Your task to perform on an android device: set default search engine in the chrome app Image 0: 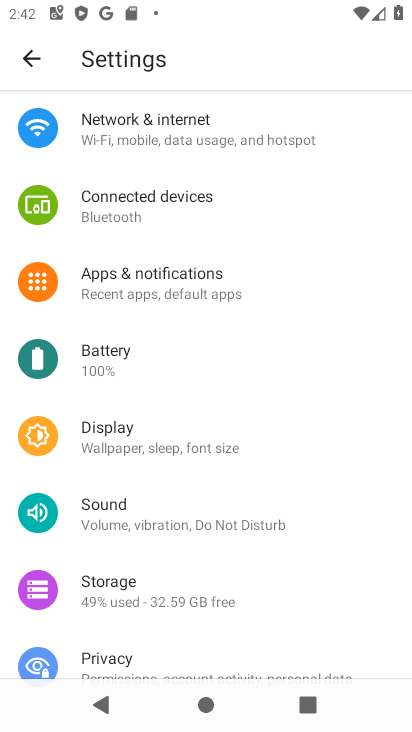
Step 0: press home button
Your task to perform on an android device: set default search engine in the chrome app Image 1: 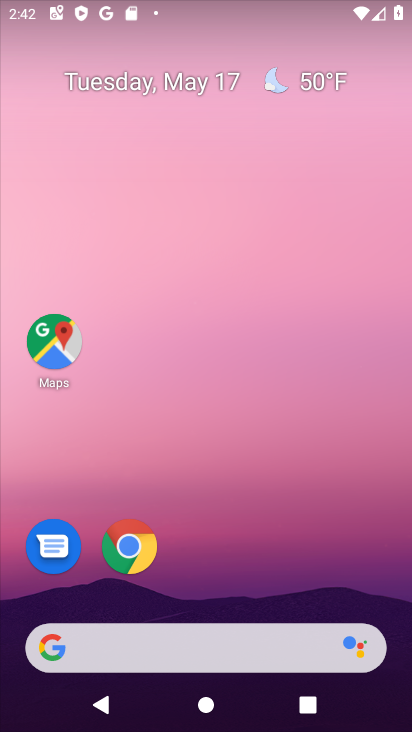
Step 1: click (135, 550)
Your task to perform on an android device: set default search engine in the chrome app Image 2: 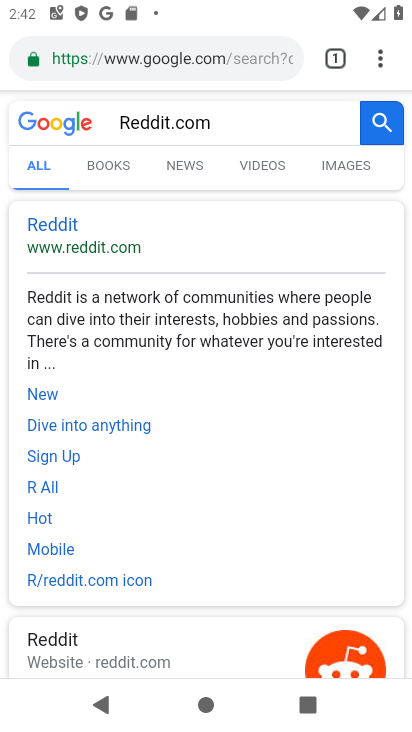
Step 2: click (382, 59)
Your task to perform on an android device: set default search engine in the chrome app Image 3: 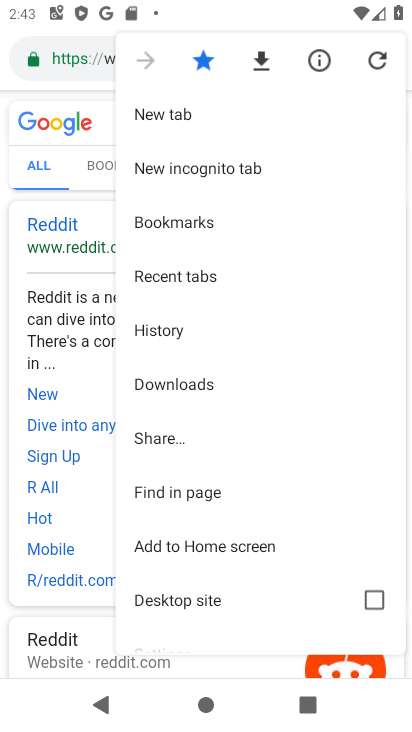
Step 3: drag from (167, 623) to (197, 399)
Your task to perform on an android device: set default search engine in the chrome app Image 4: 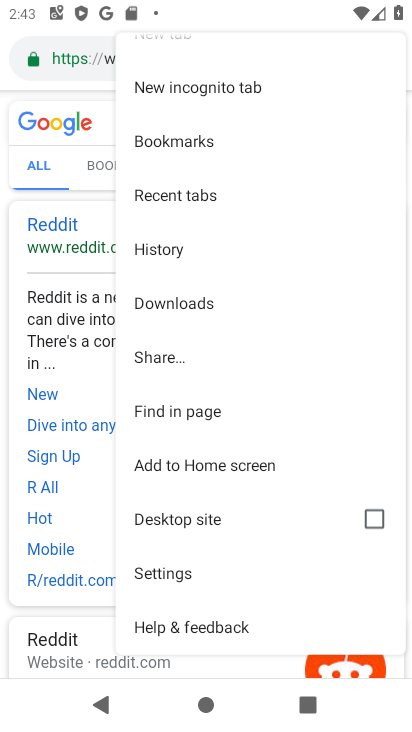
Step 4: click (171, 578)
Your task to perform on an android device: set default search engine in the chrome app Image 5: 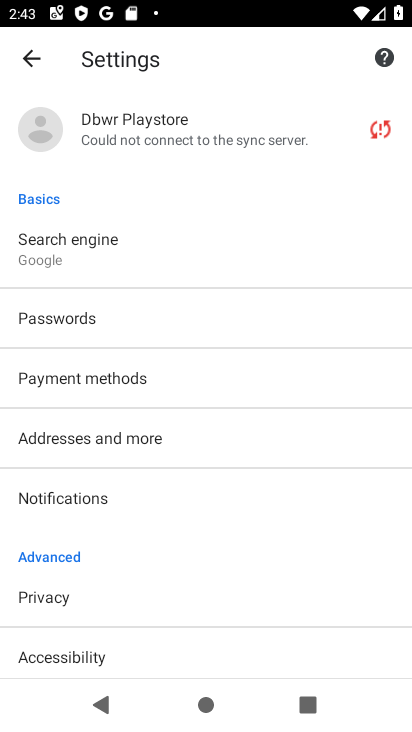
Step 5: click (78, 257)
Your task to perform on an android device: set default search engine in the chrome app Image 6: 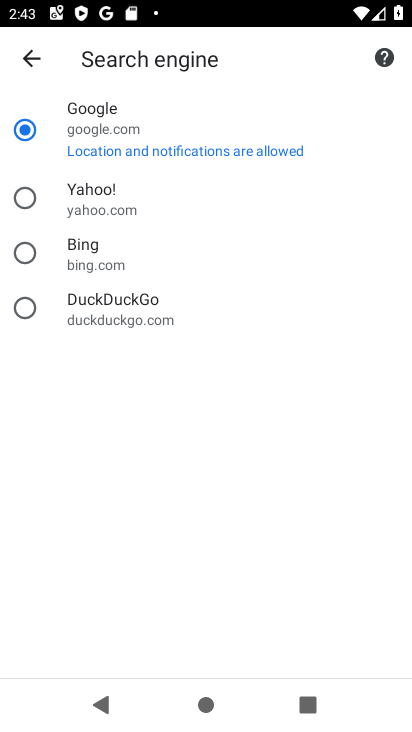
Step 6: task complete